Your task to perform on an android device: turn off picture-in-picture Image 0: 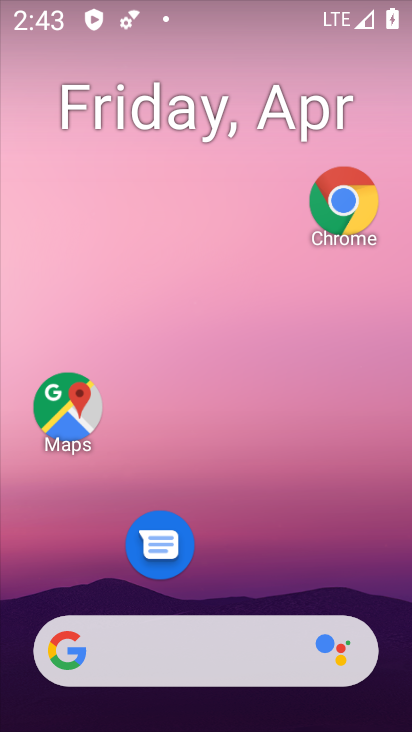
Step 0: click (342, 218)
Your task to perform on an android device: turn off picture-in-picture Image 1: 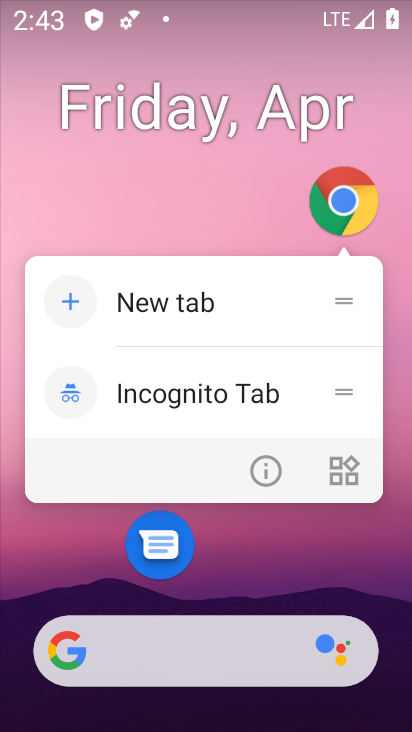
Step 1: click (255, 461)
Your task to perform on an android device: turn off picture-in-picture Image 2: 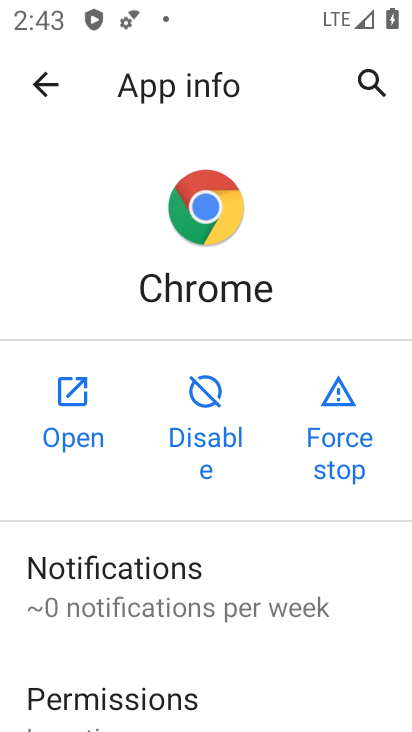
Step 2: drag from (202, 521) to (229, 337)
Your task to perform on an android device: turn off picture-in-picture Image 3: 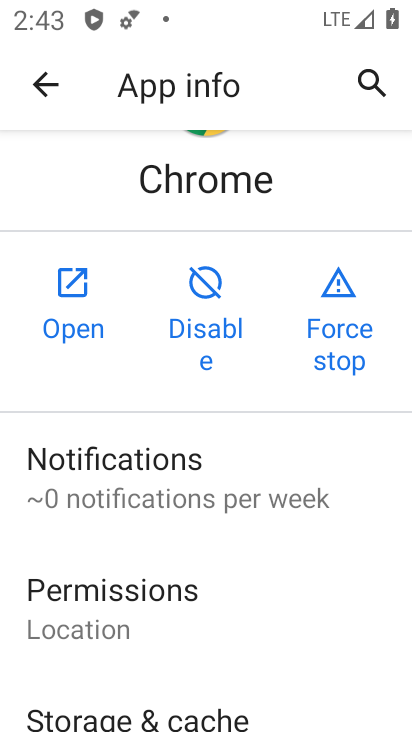
Step 3: drag from (165, 594) to (193, 438)
Your task to perform on an android device: turn off picture-in-picture Image 4: 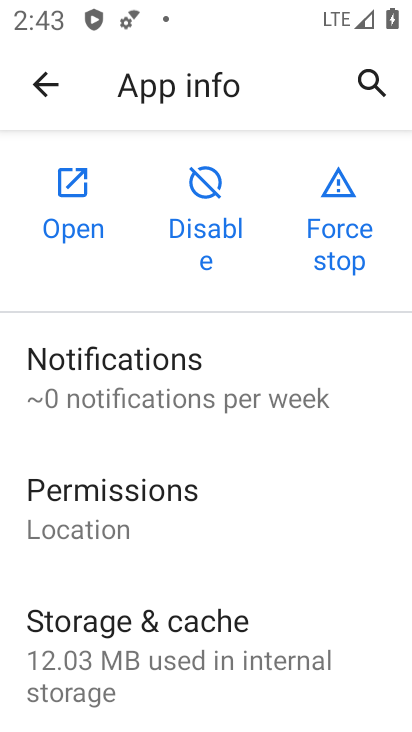
Step 4: drag from (108, 552) to (165, 262)
Your task to perform on an android device: turn off picture-in-picture Image 5: 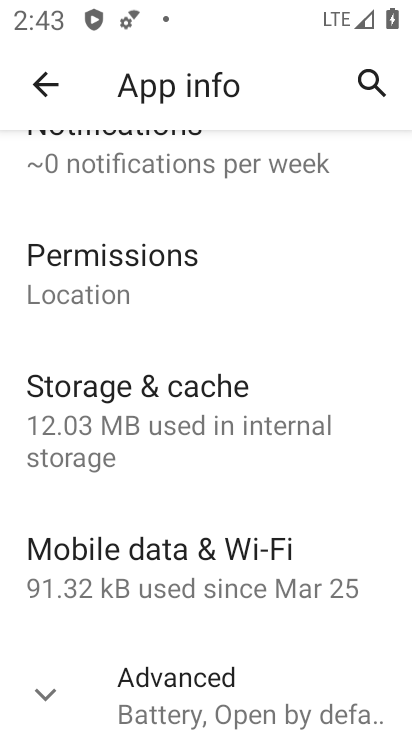
Step 5: drag from (170, 619) to (268, 81)
Your task to perform on an android device: turn off picture-in-picture Image 6: 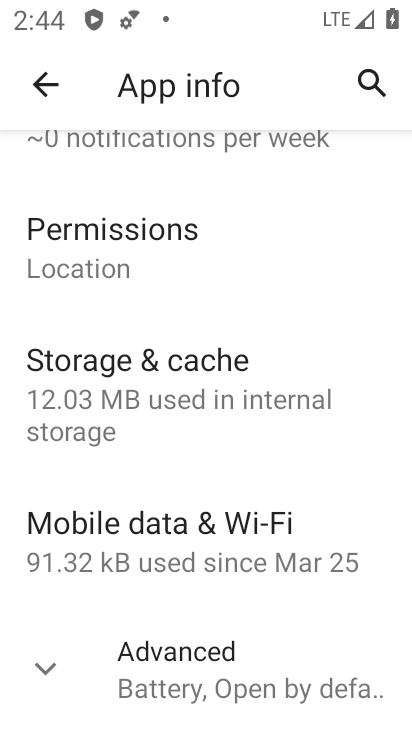
Step 6: click (147, 649)
Your task to perform on an android device: turn off picture-in-picture Image 7: 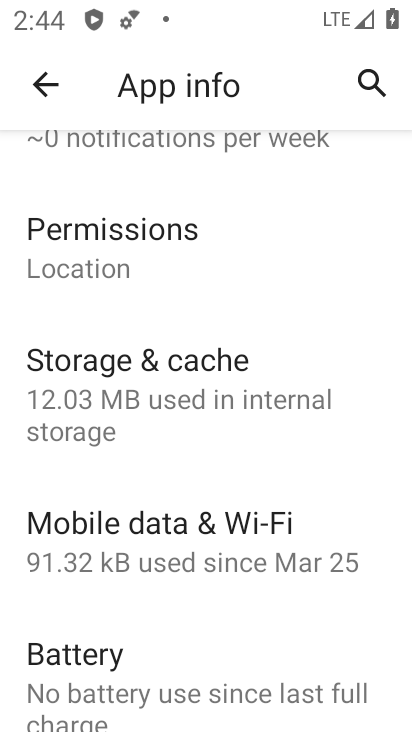
Step 7: drag from (134, 648) to (255, 144)
Your task to perform on an android device: turn off picture-in-picture Image 8: 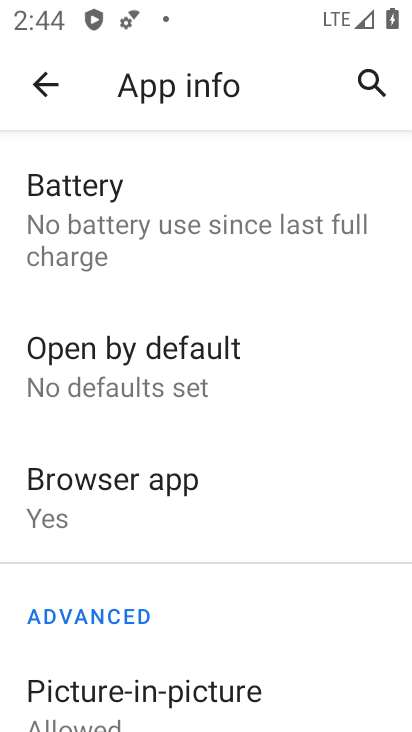
Step 8: drag from (150, 417) to (176, 263)
Your task to perform on an android device: turn off picture-in-picture Image 9: 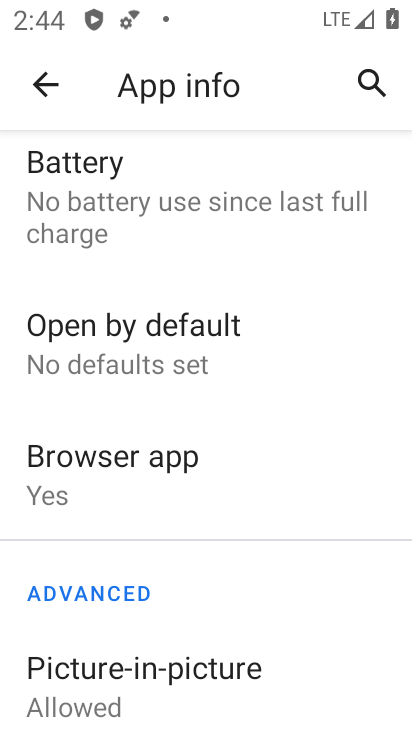
Step 9: click (117, 661)
Your task to perform on an android device: turn off picture-in-picture Image 10: 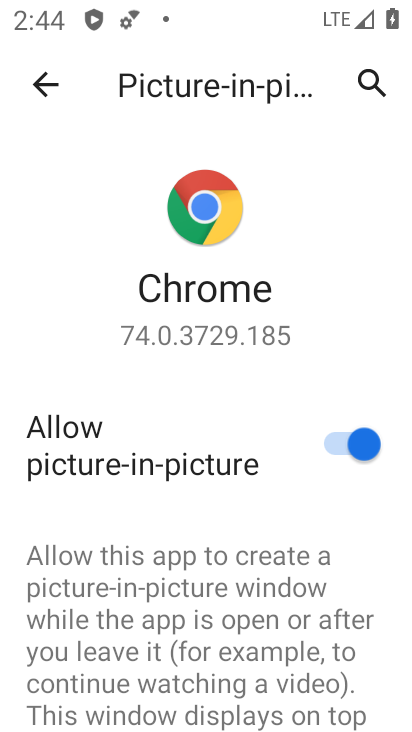
Step 10: click (336, 450)
Your task to perform on an android device: turn off picture-in-picture Image 11: 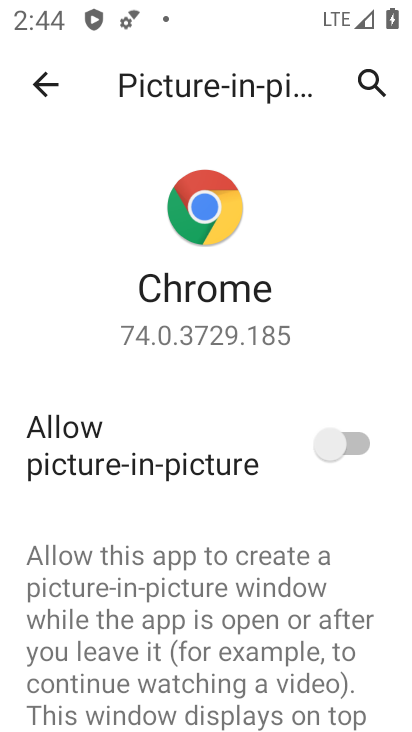
Step 11: task complete